Your task to perform on an android device: turn on location history Image 0: 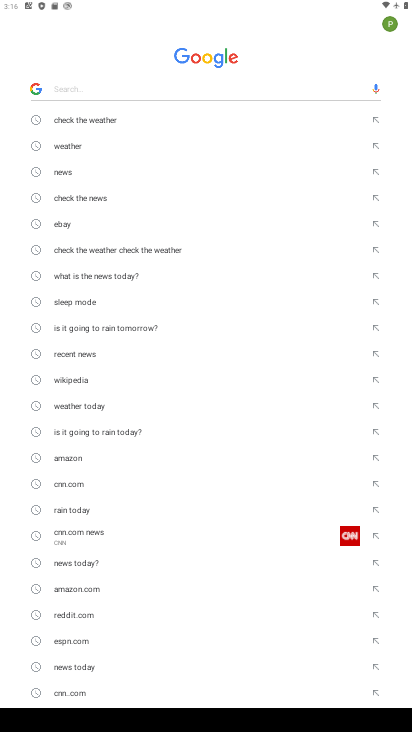
Step 0: press home button
Your task to perform on an android device: turn on location history Image 1: 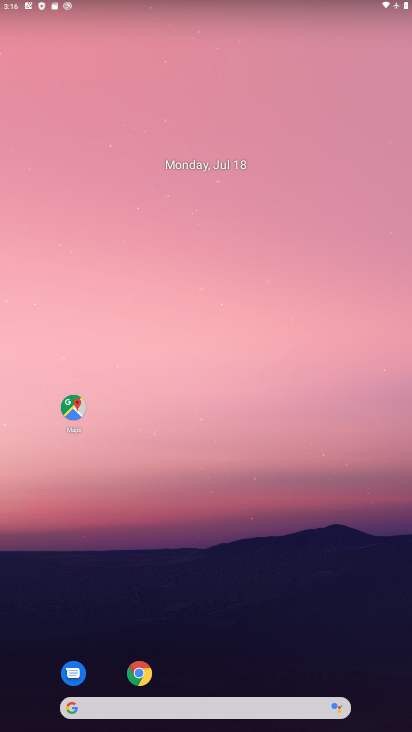
Step 1: drag from (265, 691) to (166, 171)
Your task to perform on an android device: turn on location history Image 2: 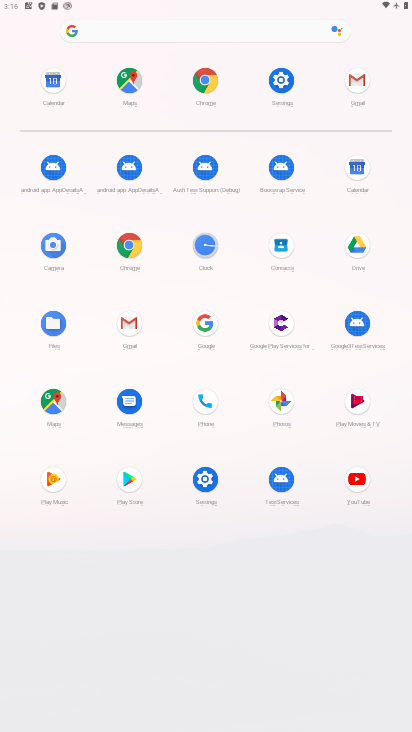
Step 2: click (282, 77)
Your task to perform on an android device: turn on location history Image 3: 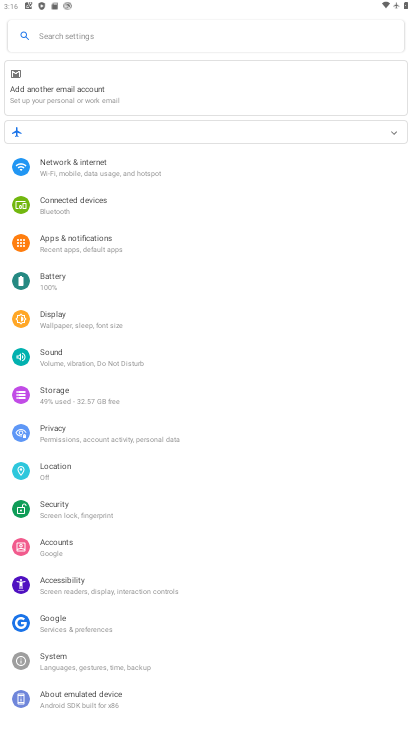
Step 3: click (63, 458)
Your task to perform on an android device: turn on location history Image 4: 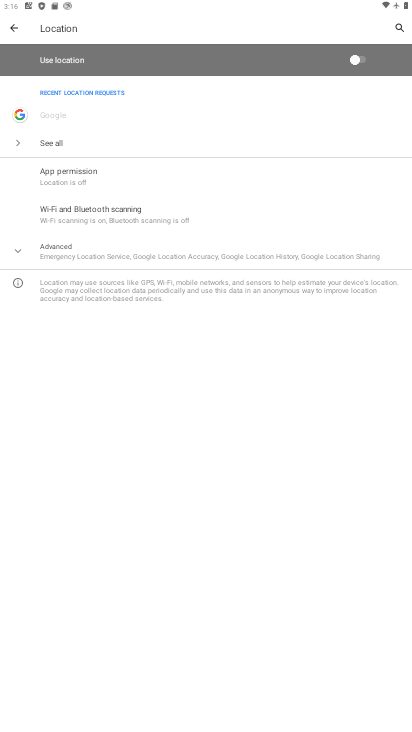
Step 4: click (158, 253)
Your task to perform on an android device: turn on location history Image 5: 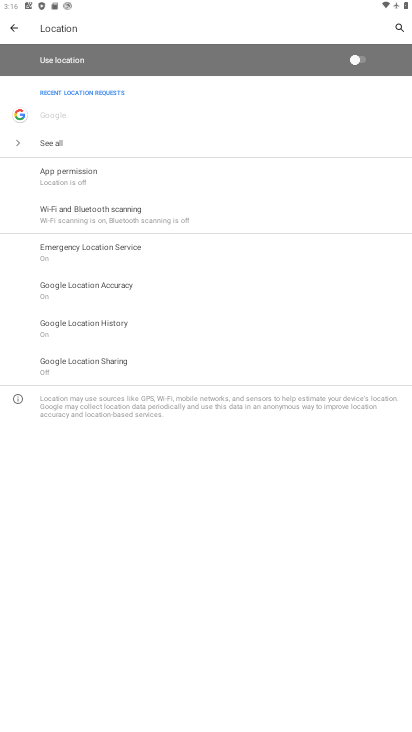
Step 5: click (115, 320)
Your task to perform on an android device: turn on location history Image 6: 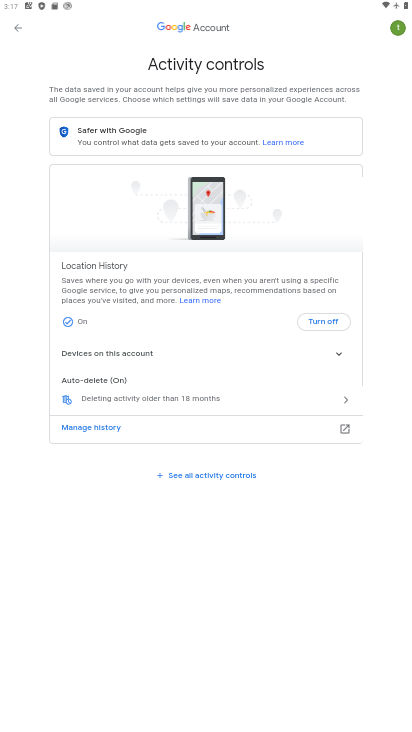
Step 6: click (77, 314)
Your task to perform on an android device: turn on location history Image 7: 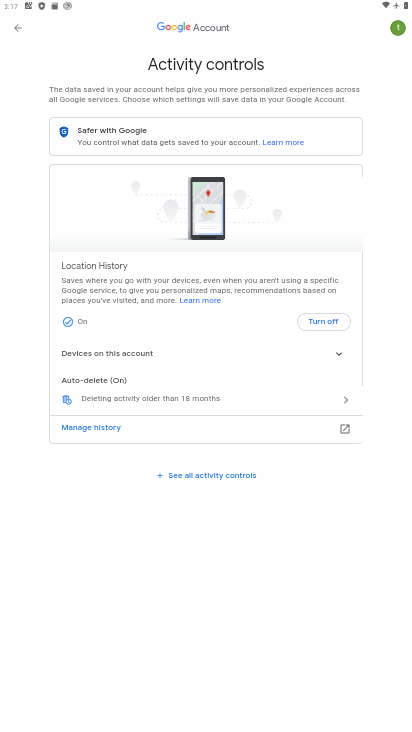
Step 7: task complete